Your task to perform on an android device: Go to Wikipedia Image 0: 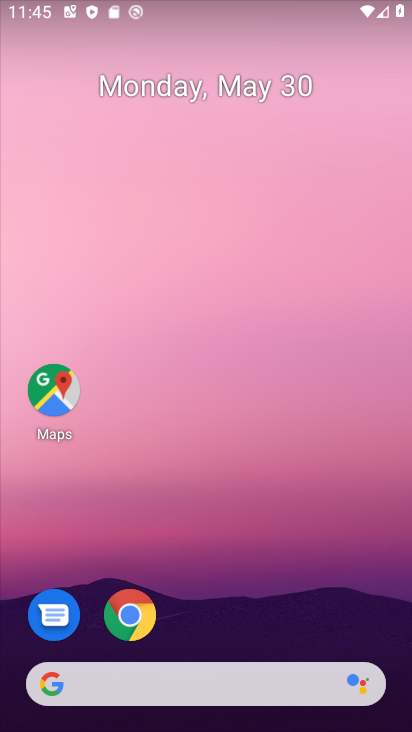
Step 0: drag from (362, 602) to (377, 259)
Your task to perform on an android device: Go to Wikipedia Image 1: 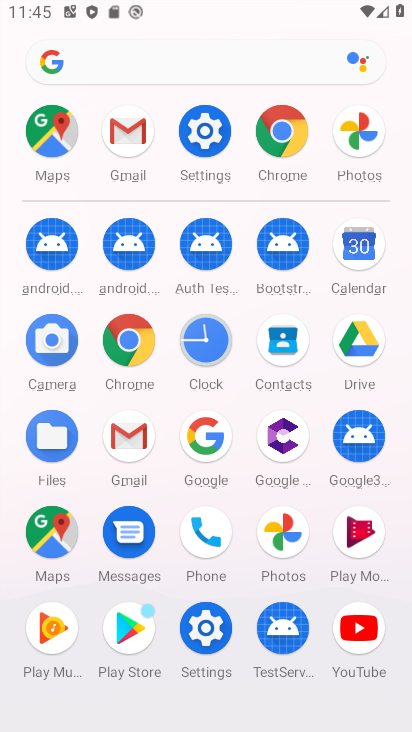
Step 1: click (139, 352)
Your task to perform on an android device: Go to Wikipedia Image 2: 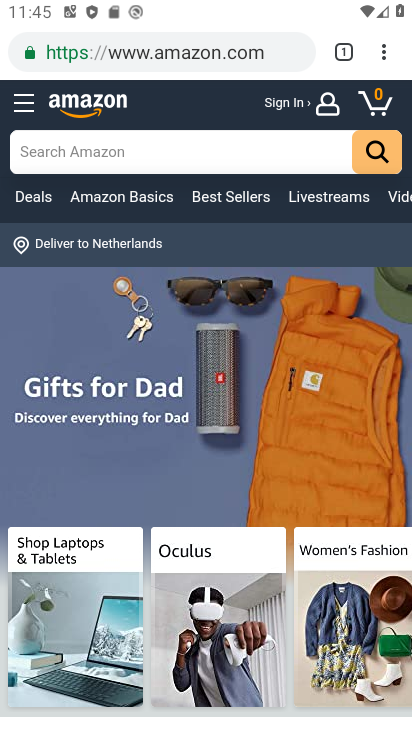
Step 2: click (235, 43)
Your task to perform on an android device: Go to Wikipedia Image 3: 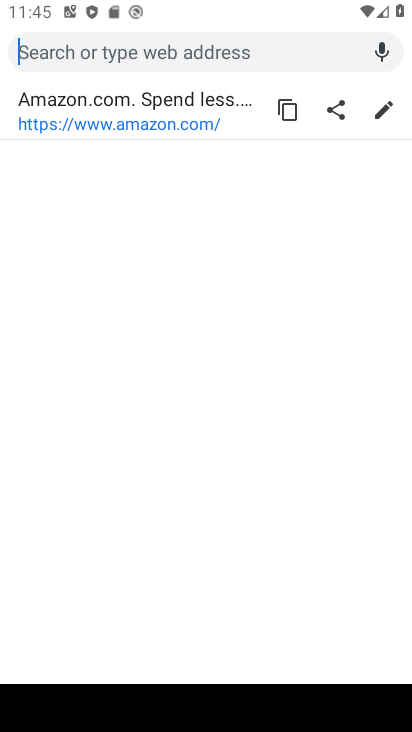
Step 3: type "wikipedia"
Your task to perform on an android device: Go to Wikipedia Image 4: 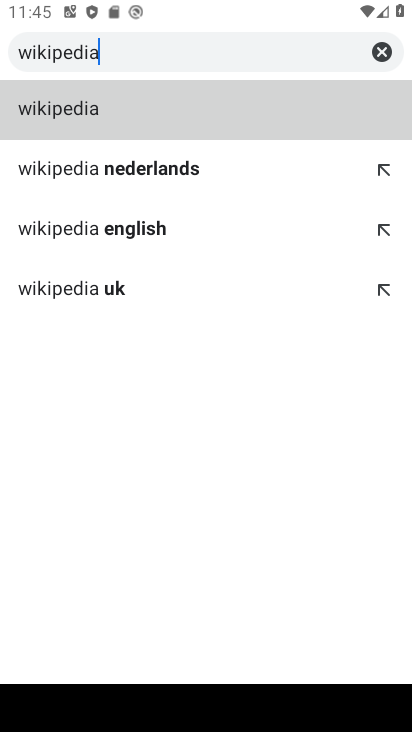
Step 4: click (224, 111)
Your task to perform on an android device: Go to Wikipedia Image 5: 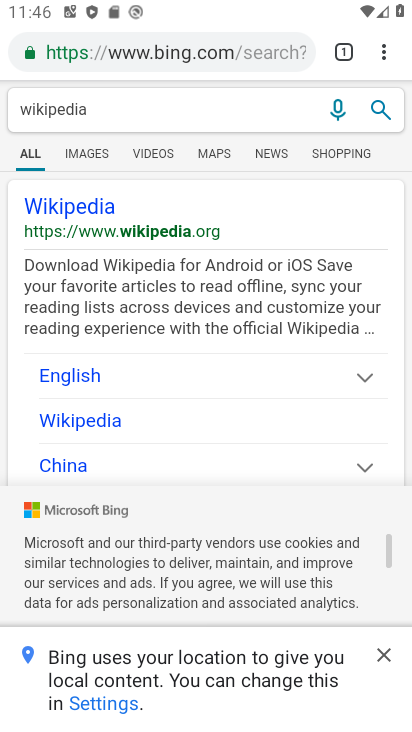
Step 5: task complete